Your task to perform on an android device: Open ESPN.com Image 0: 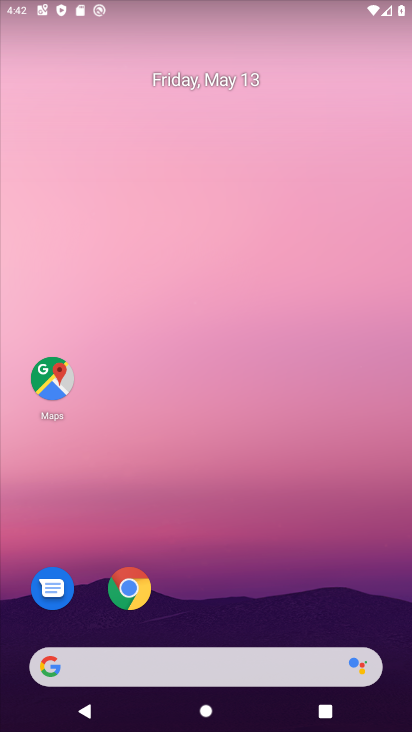
Step 0: click (140, 653)
Your task to perform on an android device: Open ESPN.com Image 1: 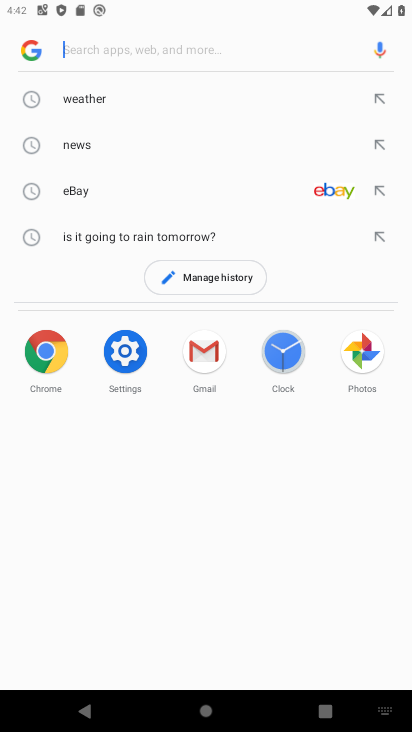
Step 1: type "espn.com"
Your task to perform on an android device: Open ESPN.com Image 2: 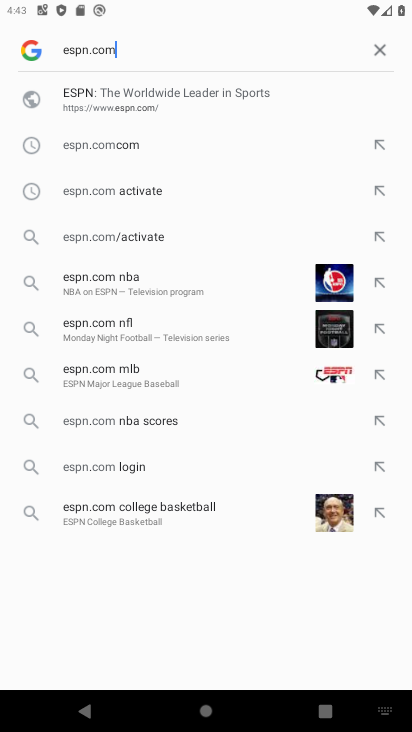
Step 2: click (223, 108)
Your task to perform on an android device: Open ESPN.com Image 3: 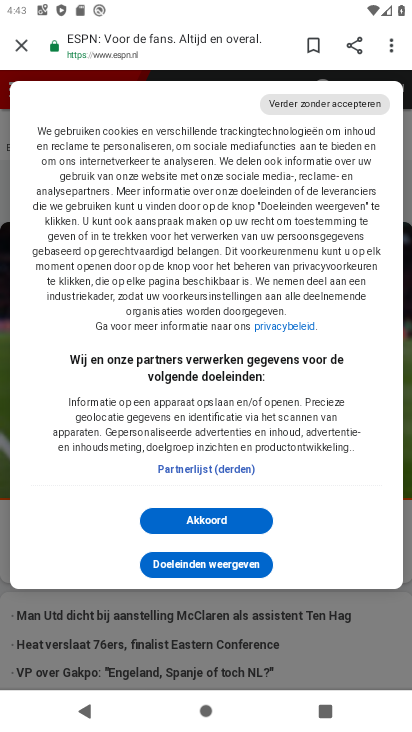
Step 3: task complete